Your task to perform on an android device: Open Yahoo.com Image 0: 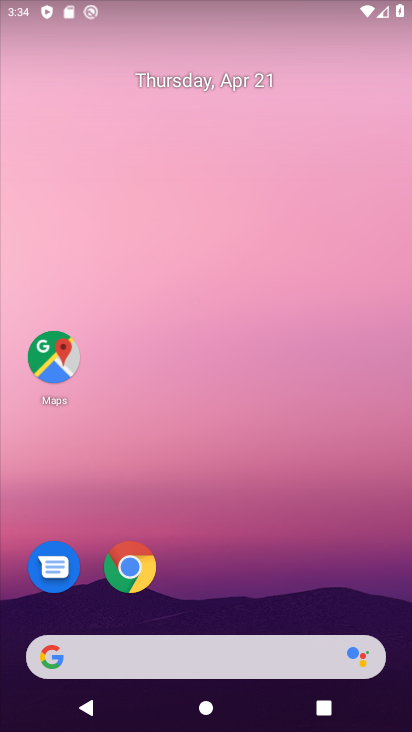
Step 0: drag from (236, 541) to (207, 143)
Your task to perform on an android device: Open Yahoo.com Image 1: 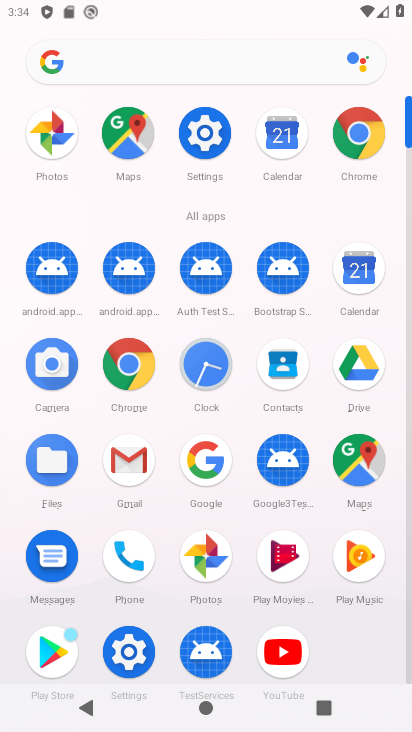
Step 1: click (107, 377)
Your task to perform on an android device: Open Yahoo.com Image 2: 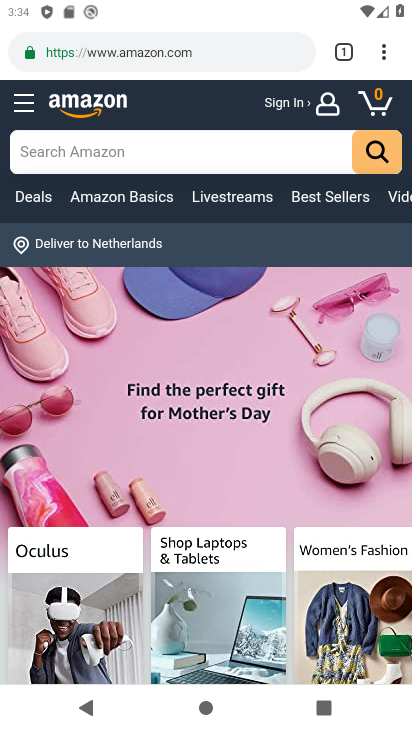
Step 2: click (266, 52)
Your task to perform on an android device: Open Yahoo.com Image 3: 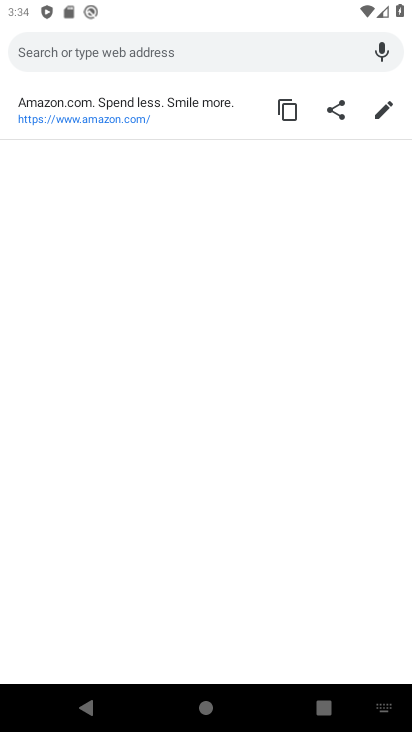
Step 3: type "yahoo.com"
Your task to perform on an android device: Open Yahoo.com Image 4: 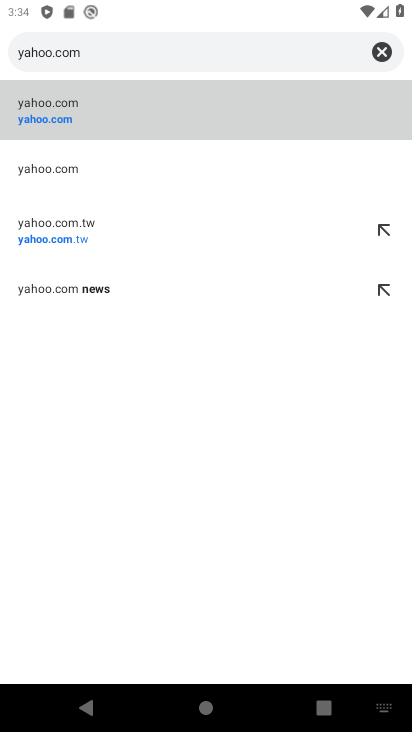
Step 4: click (82, 116)
Your task to perform on an android device: Open Yahoo.com Image 5: 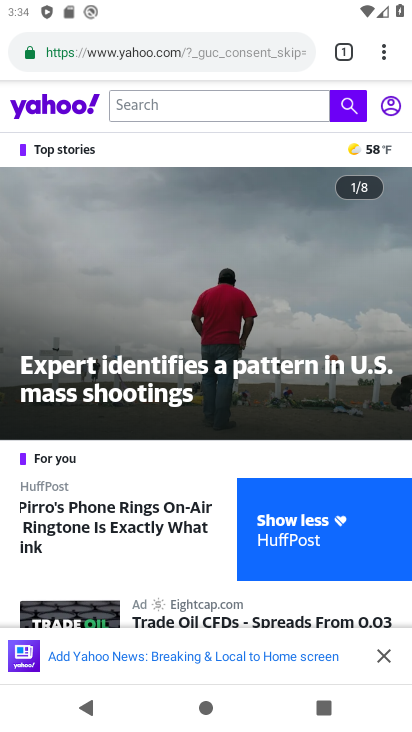
Step 5: task complete